Your task to perform on an android device: open app "Cash App" Image 0: 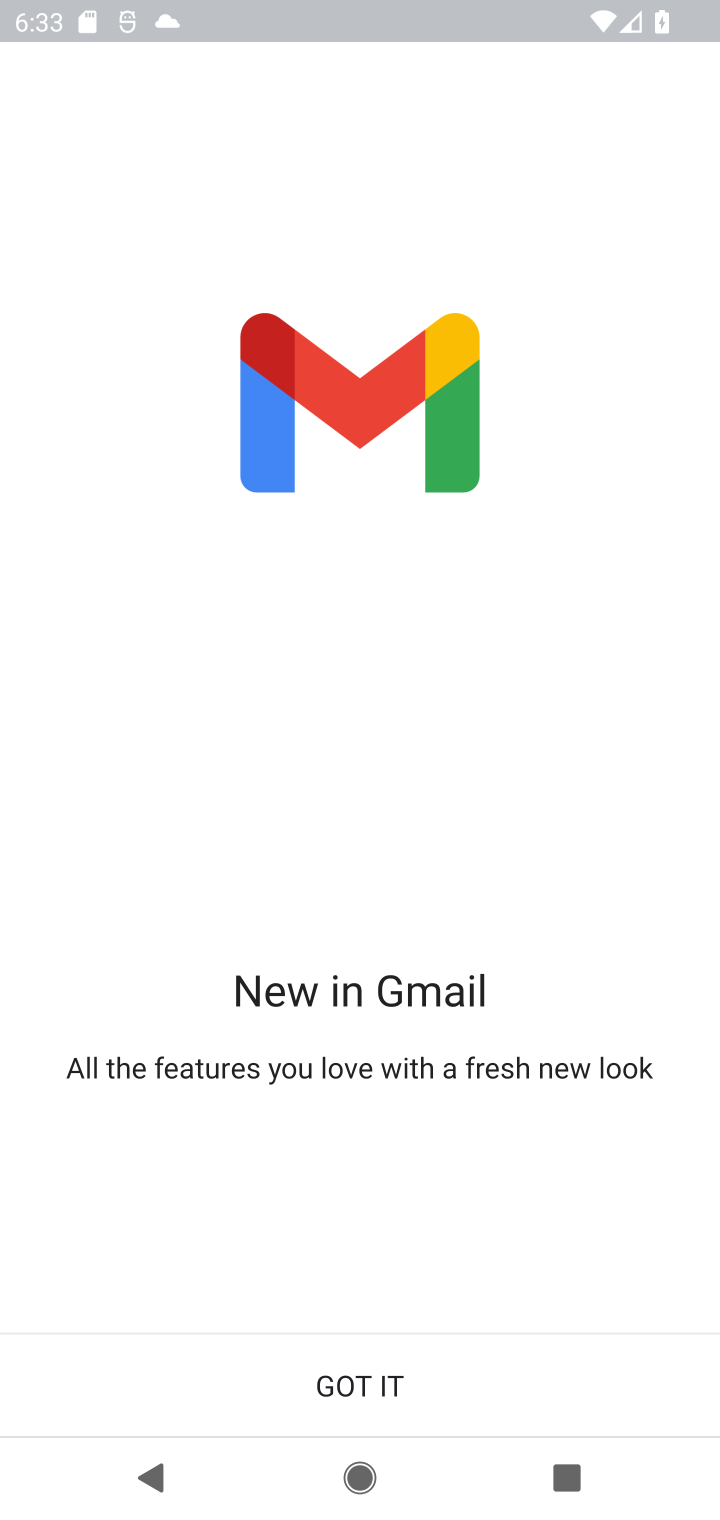
Step 0: press home button
Your task to perform on an android device: open app "Cash App" Image 1: 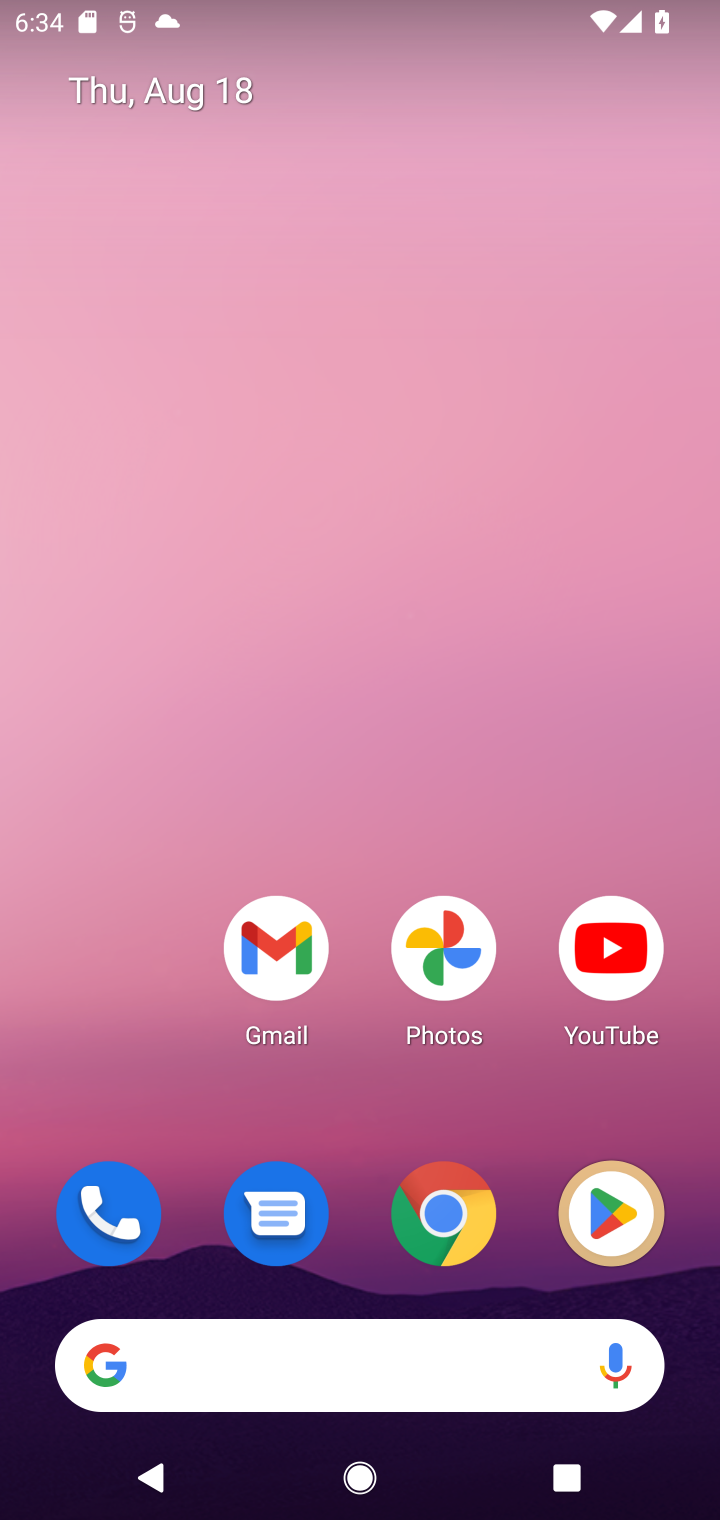
Step 1: click (600, 1223)
Your task to perform on an android device: open app "Cash App" Image 2: 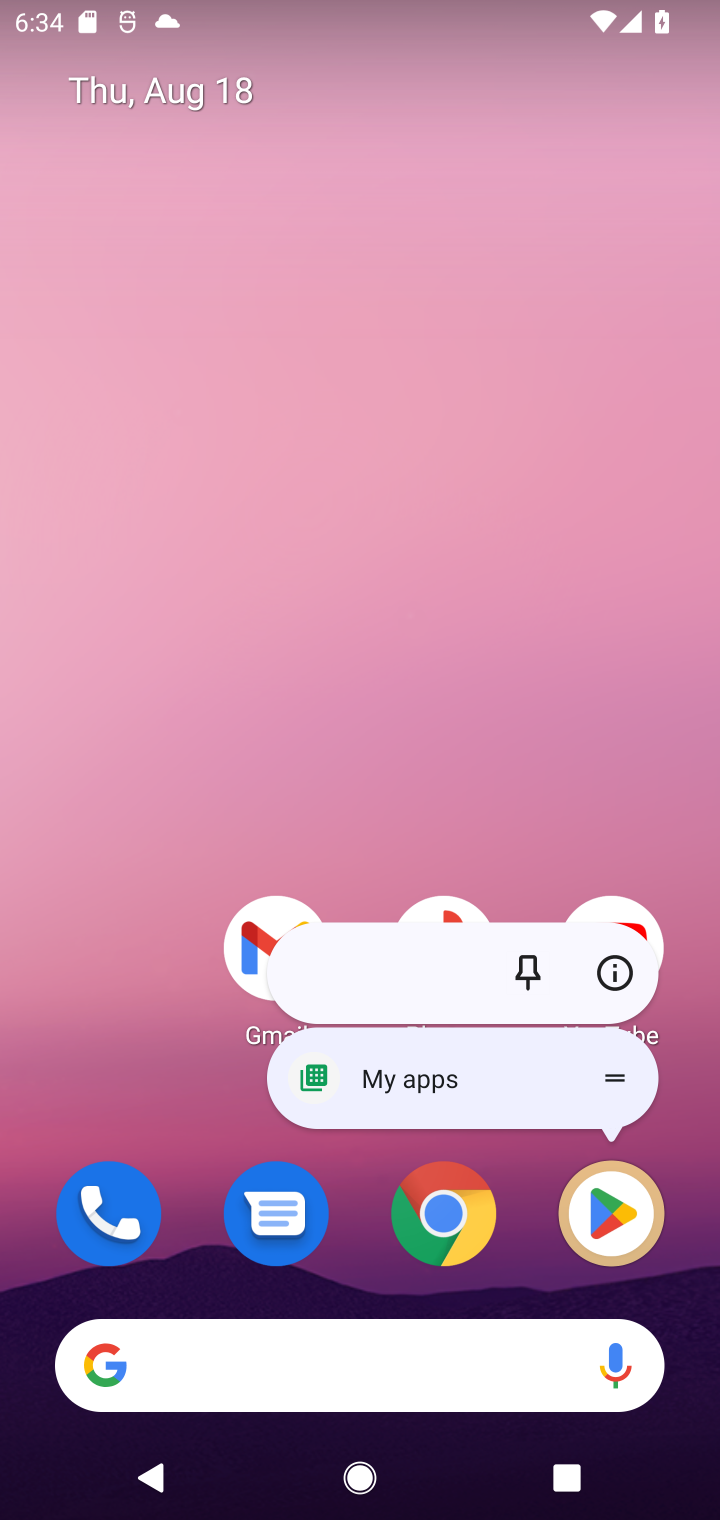
Step 2: click (608, 1208)
Your task to perform on an android device: open app "Cash App" Image 3: 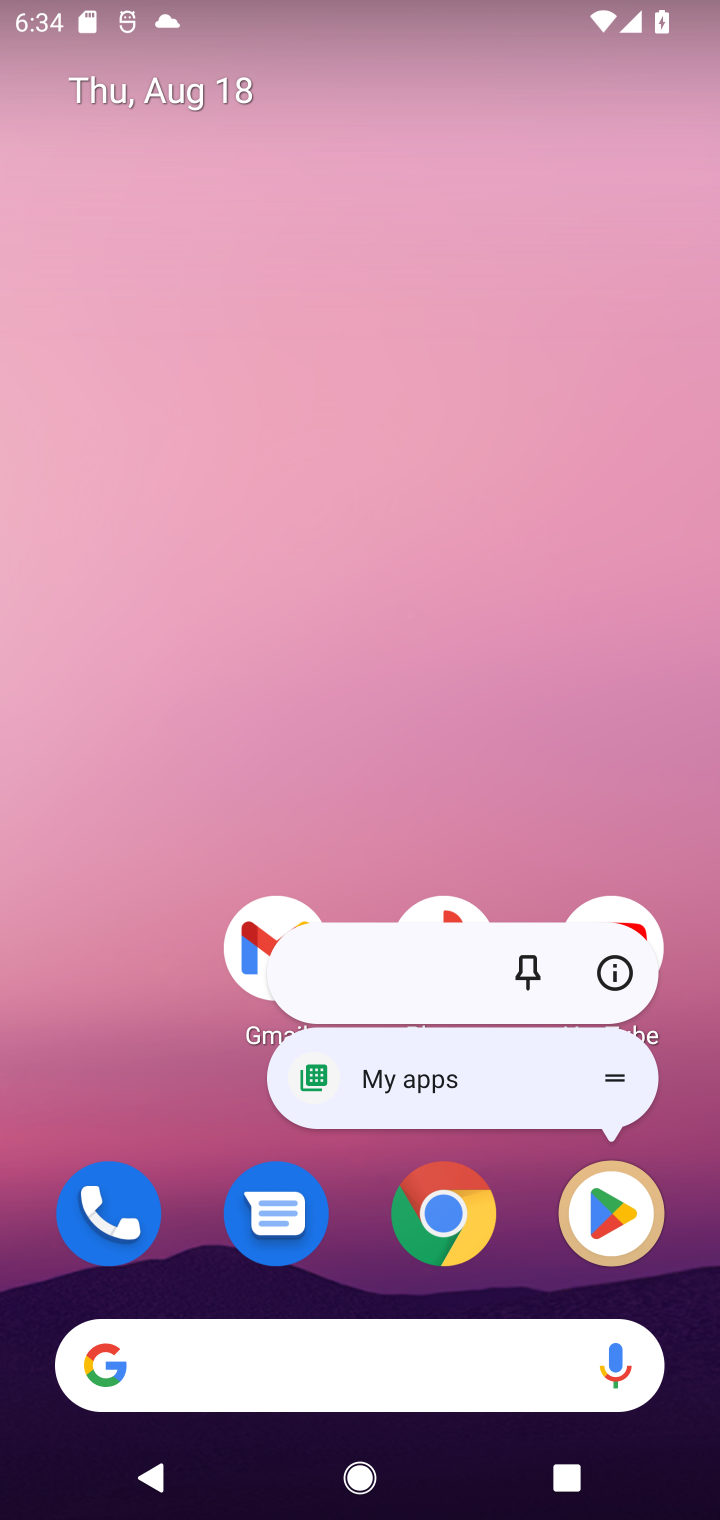
Step 3: click (606, 1206)
Your task to perform on an android device: open app "Cash App" Image 4: 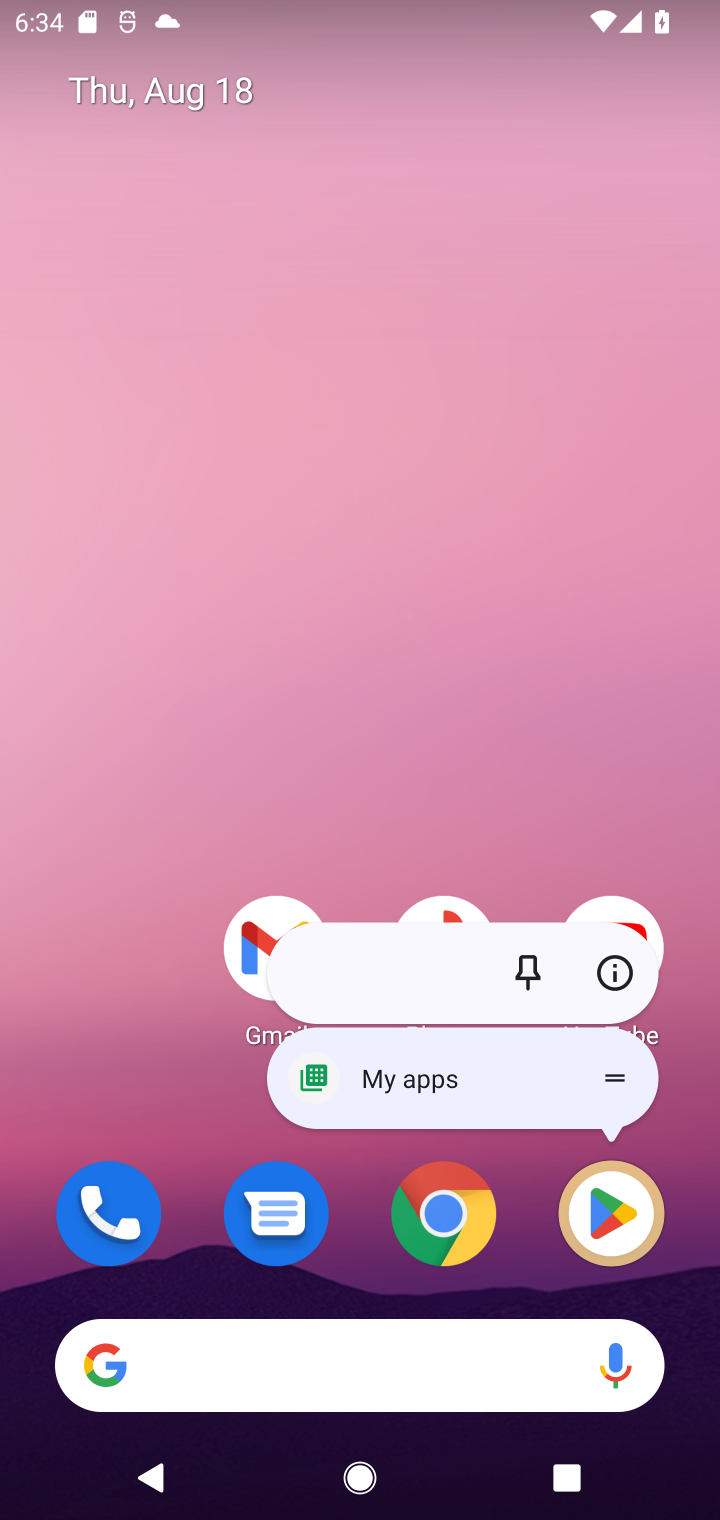
Step 4: click (606, 1204)
Your task to perform on an android device: open app "Cash App" Image 5: 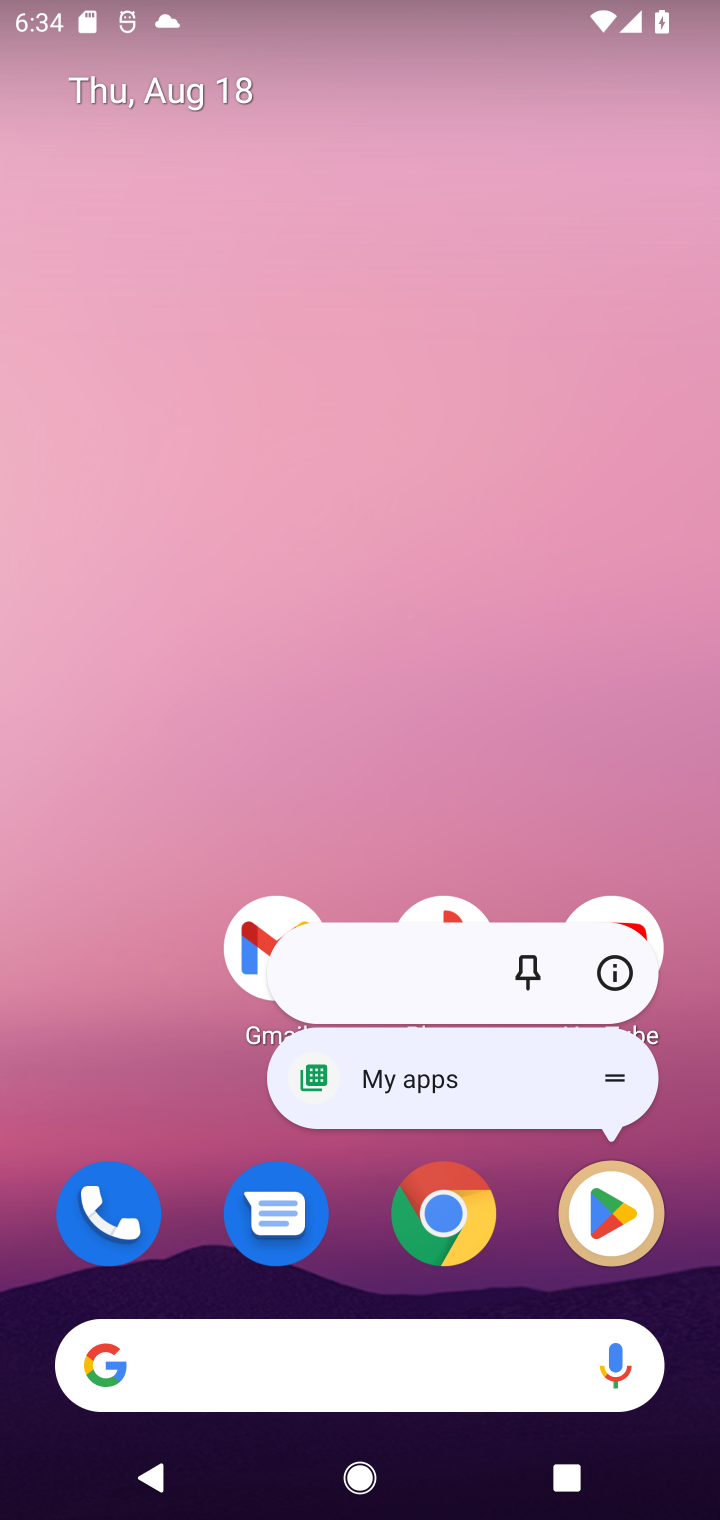
Step 5: click (425, 683)
Your task to perform on an android device: open app "Cash App" Image 6: 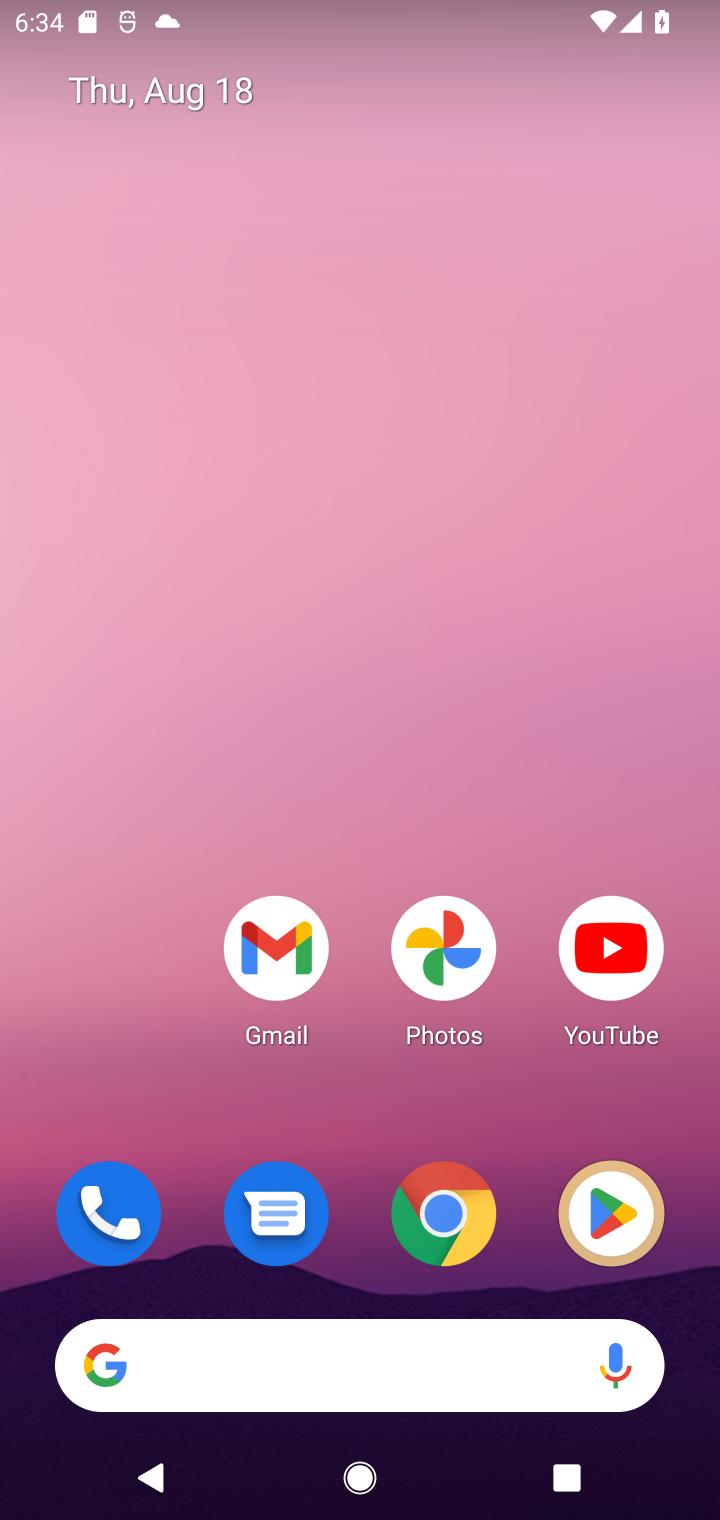
Step 6: click (605, 1206)
Your task to perform on an android device: open app "Cash App" Image 7: 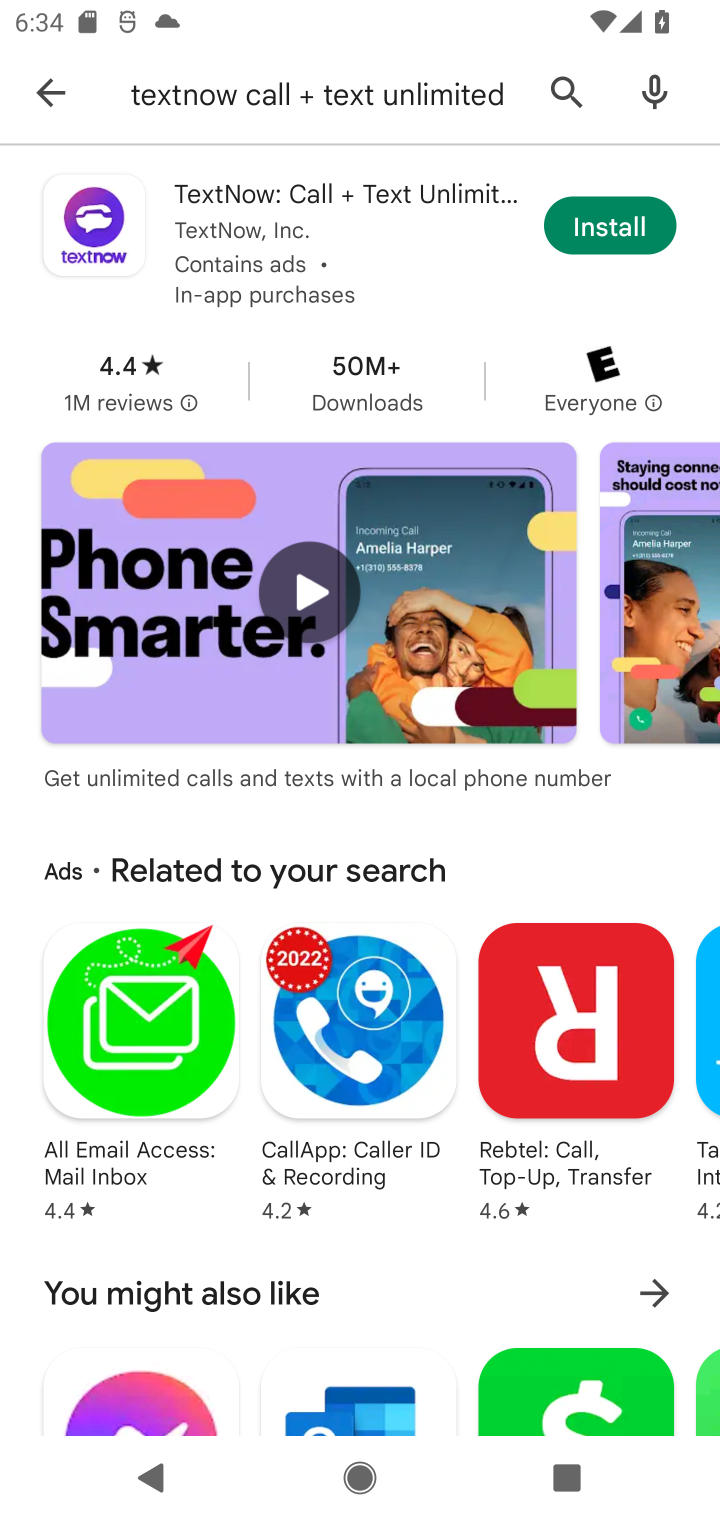
Step 7: click (53, 91)
Your task to perform on an android device: open app "Cash App" Image 8: 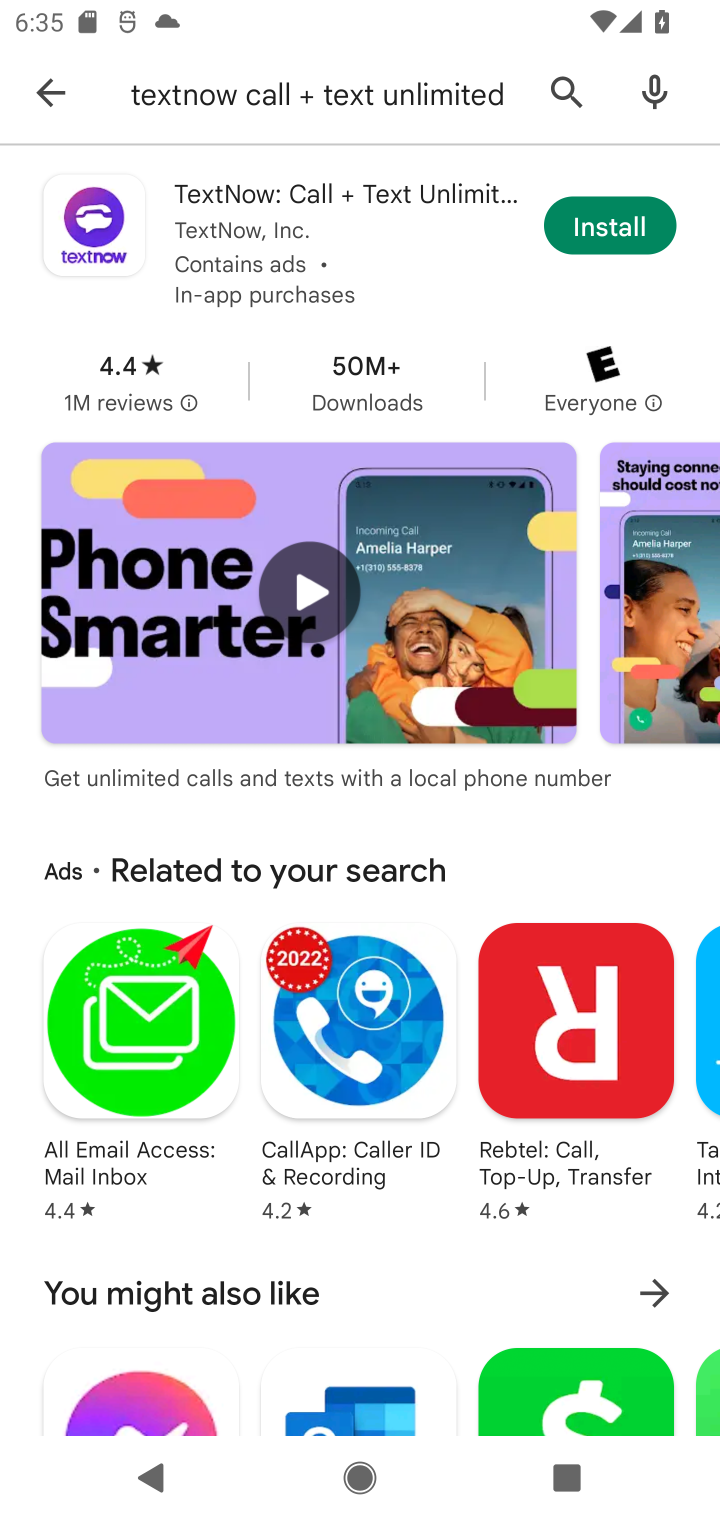
Step 8: click (555, 88)
Your task to perform on an android device: open app "Cash App" Image 9: 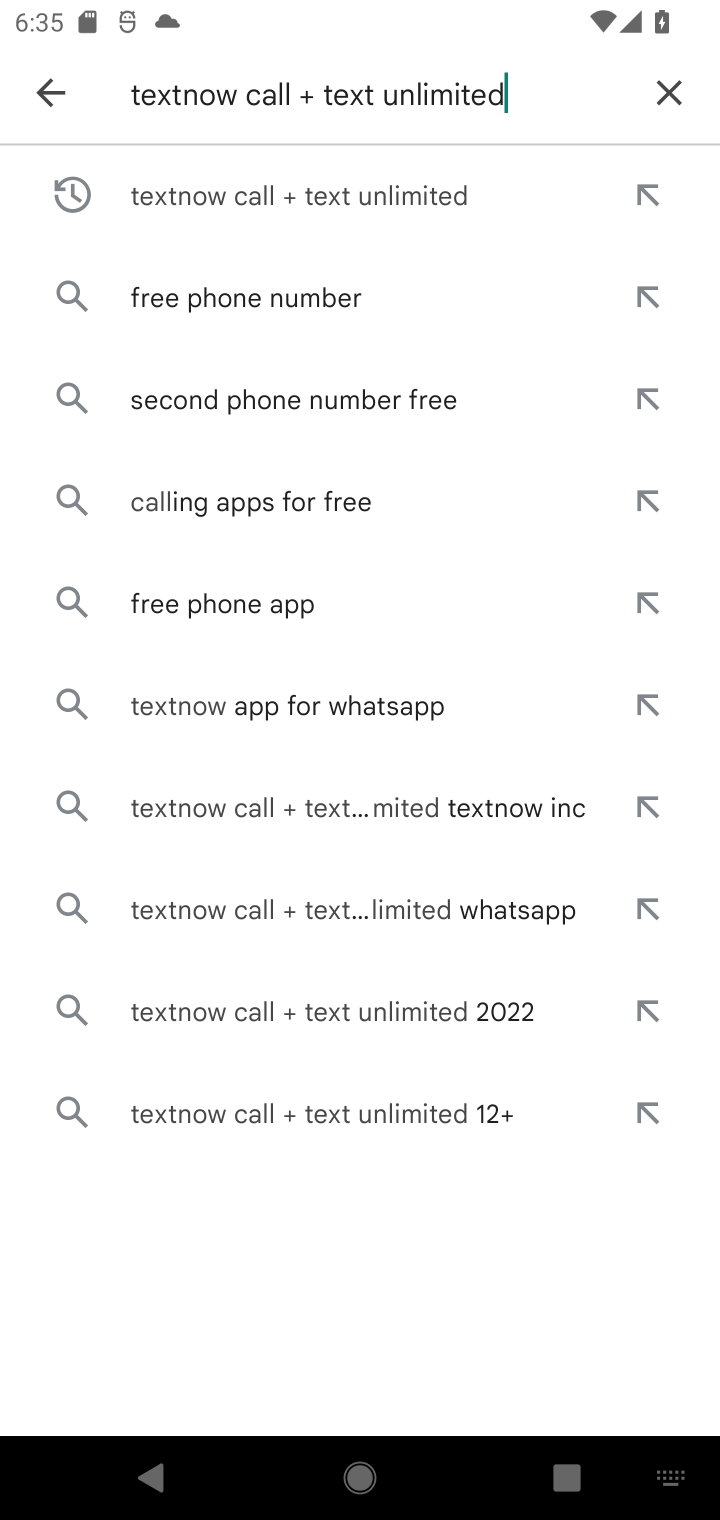
Step 9: click (653, 90)
Your task to perform on an android device: open app "Cash App" Image 10: 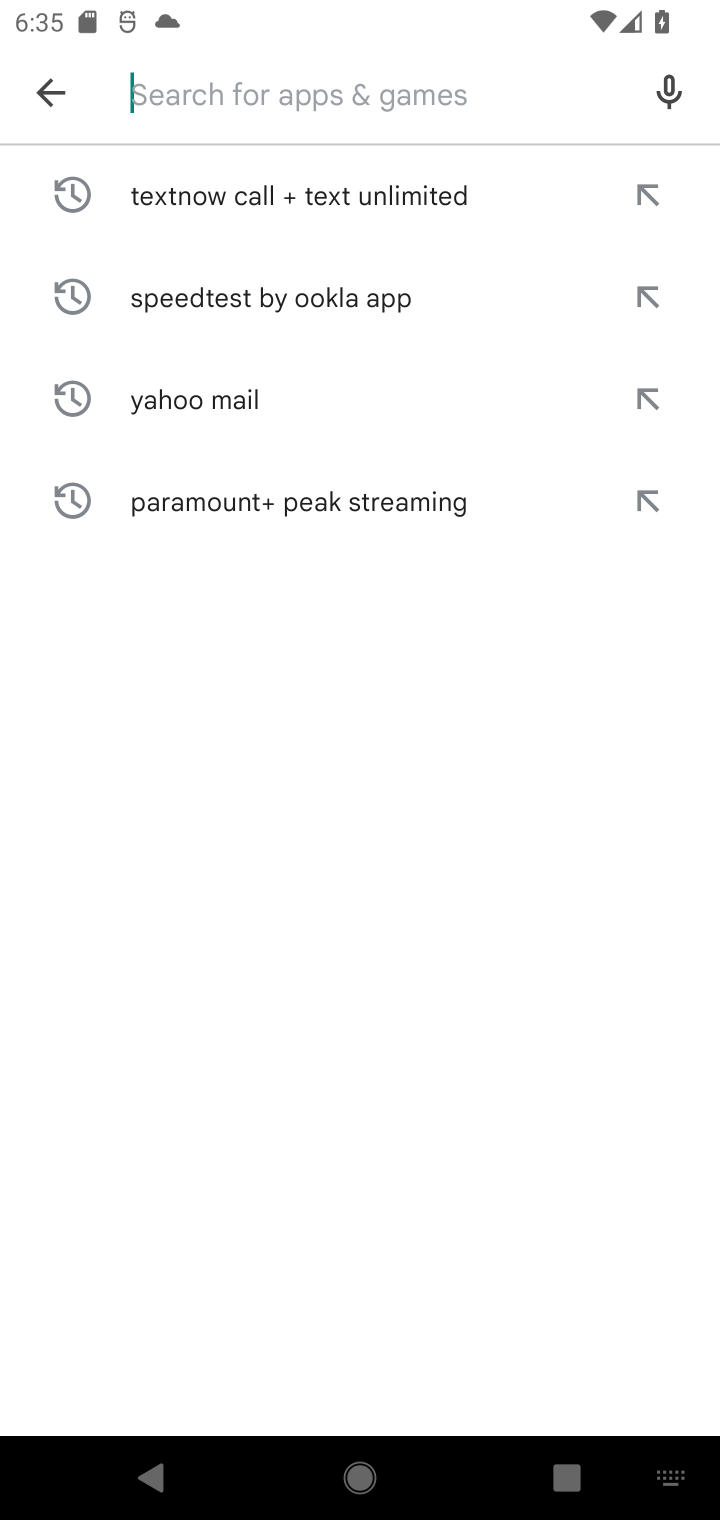
Step 10: type "Cash App"
Your task to perform on an android device: open app "Cash App" Image 11: 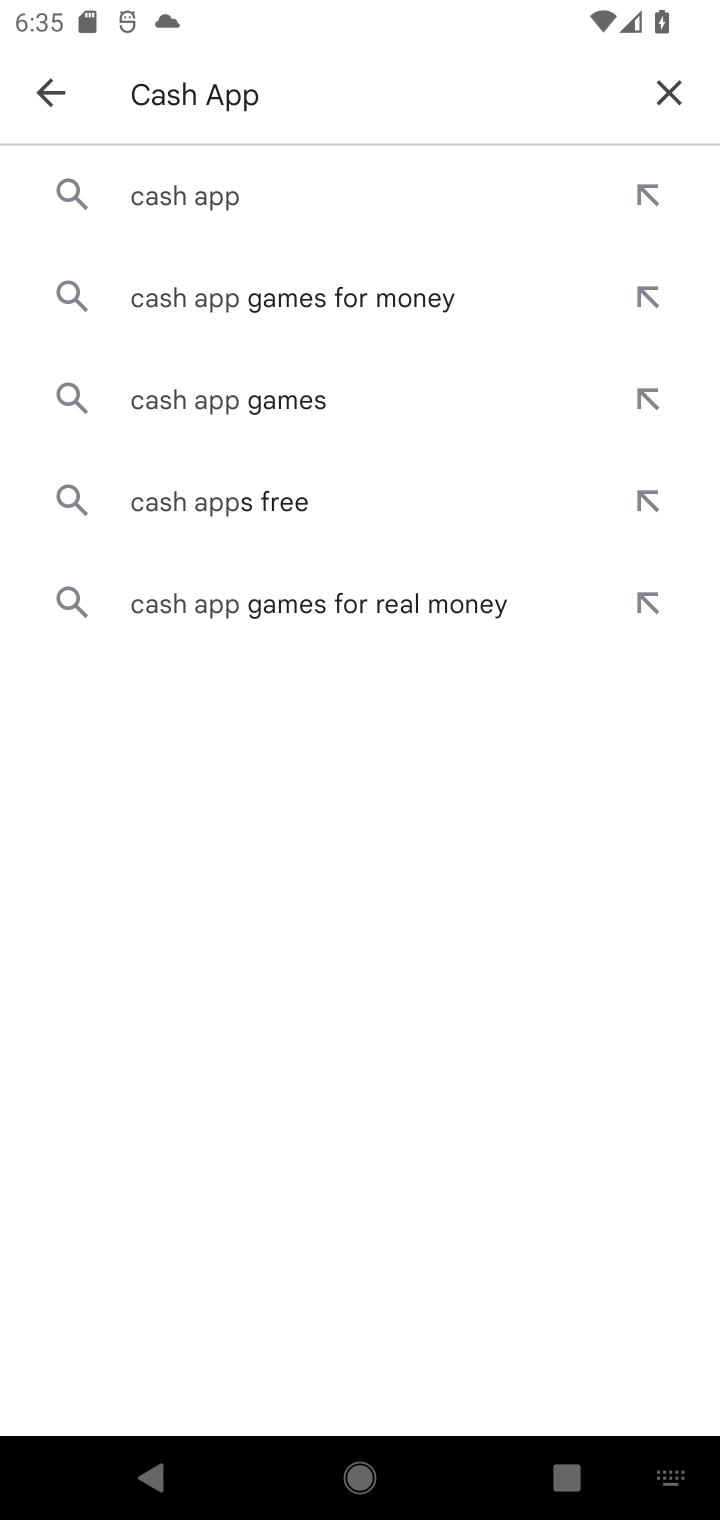
Step 11: click (225, 203)
Your task to perform on an android device: open app "Cash App" Image 12: 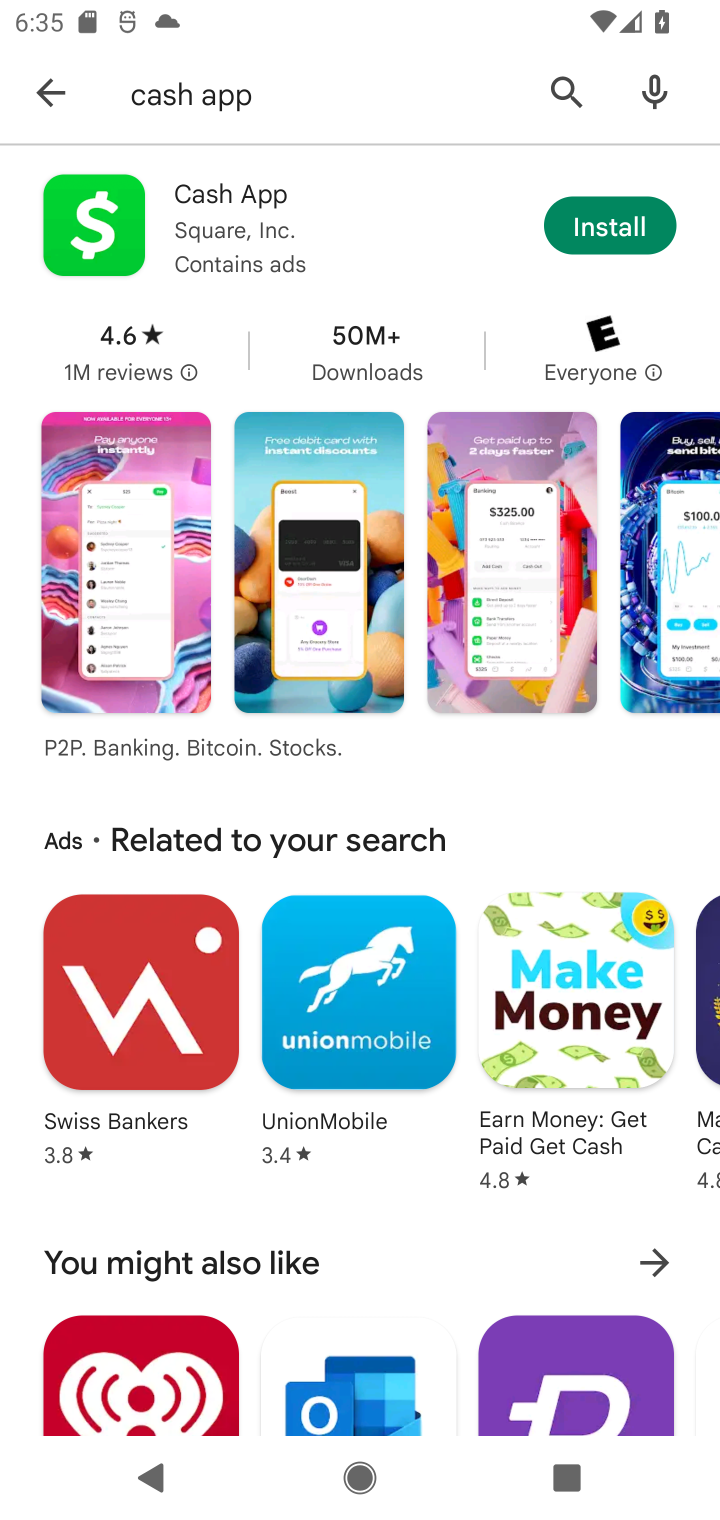
Step 12: task complete